Your task to perform on an android device: Open settings on Google Maps Image 0: 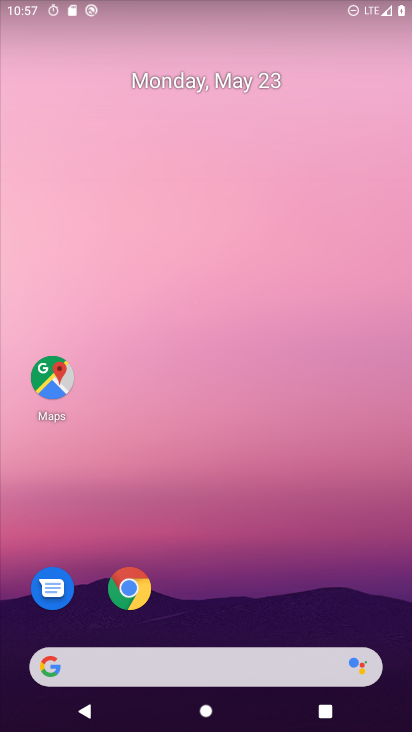
Step 0: click (44, 371)
Your task to perform on an android device: Open settings on Google Maps Image 1: 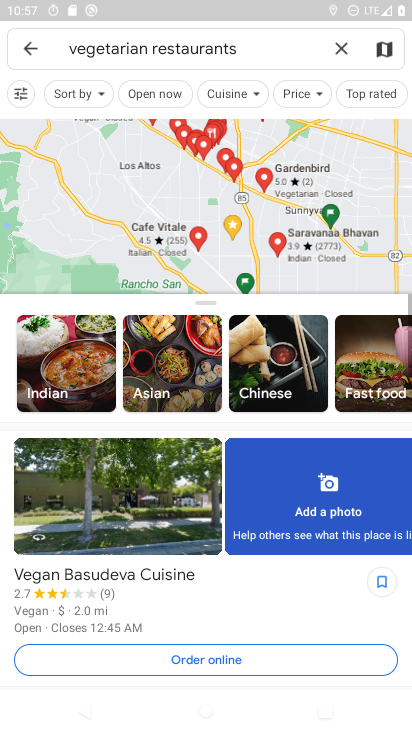
Step 1: click (27, 48)
Your task to perform on an android device: Open settings on Google Maps Image 2: 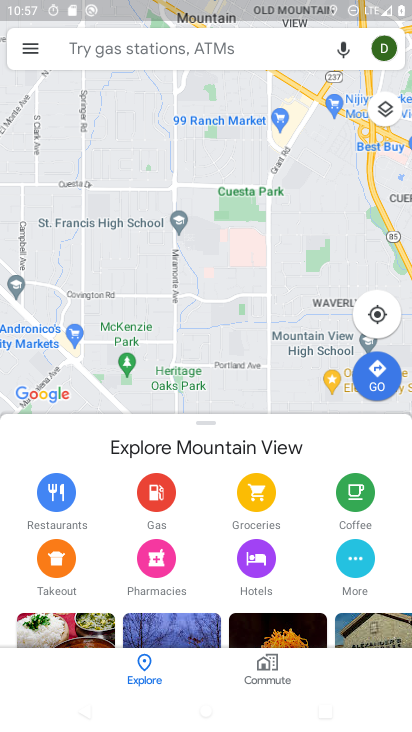
Step 2: task complete